Your task to perform on an android device: change notifications settings Image 0: 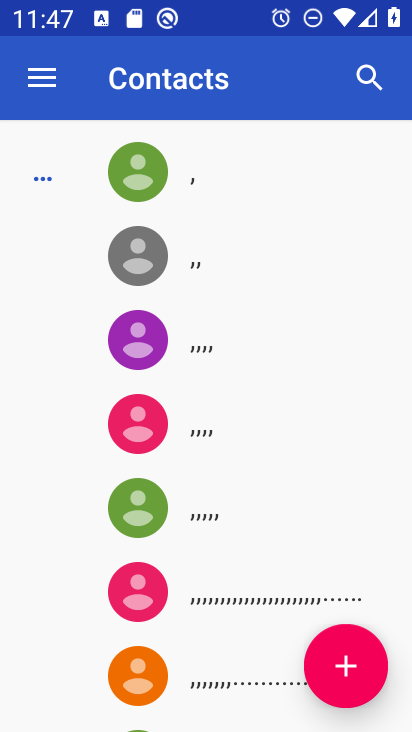
Step 0: press home button
Your task to perform on an android device: change notifications settings Image 1: 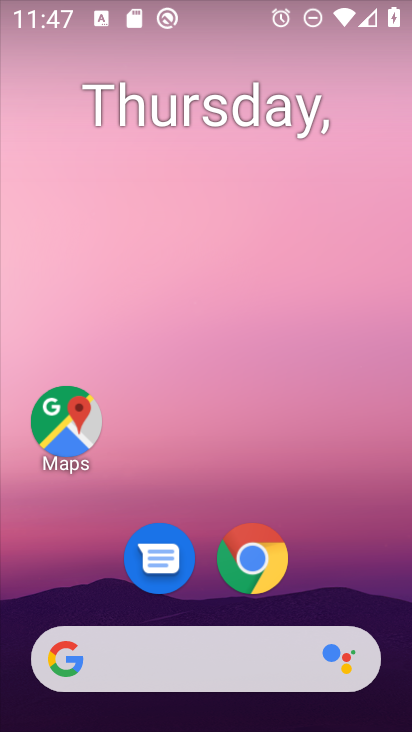
Step 1: drag from (377, 612) to (298, 120)
Your task to perform on an android device: change notifications settings Image 2: 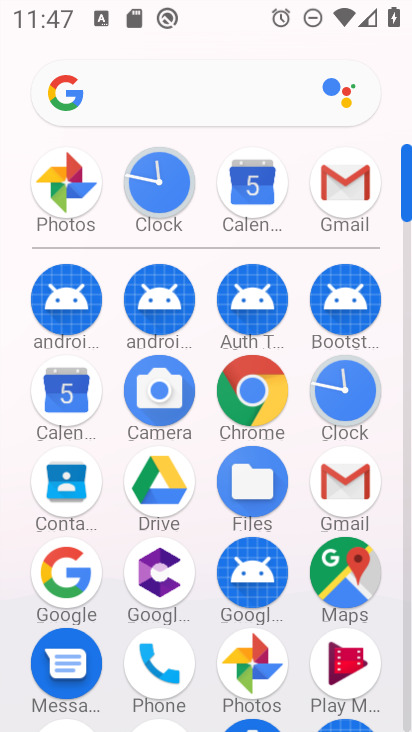
Step 2: click (407, 706)
Your task to perform on an android device: change notifications settings Image 3: 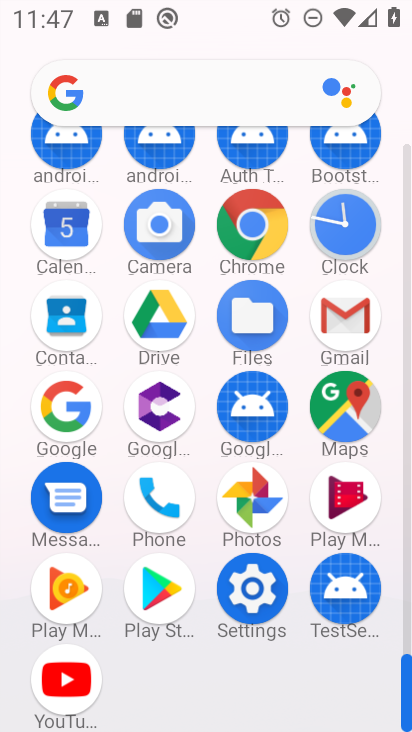
Step 3: click (246, 585)
Your task to perform on an android device: change notifications settings Image 4: 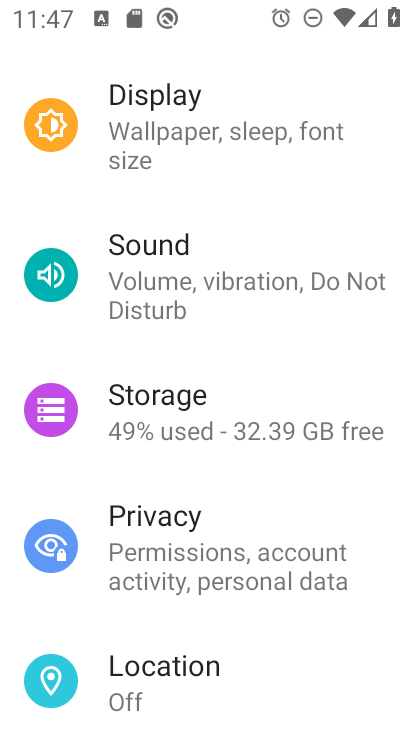
Step 4: drag from (345, 208) to (331, 433)
Your task to perform on an android device: change notifications settings Image 5: 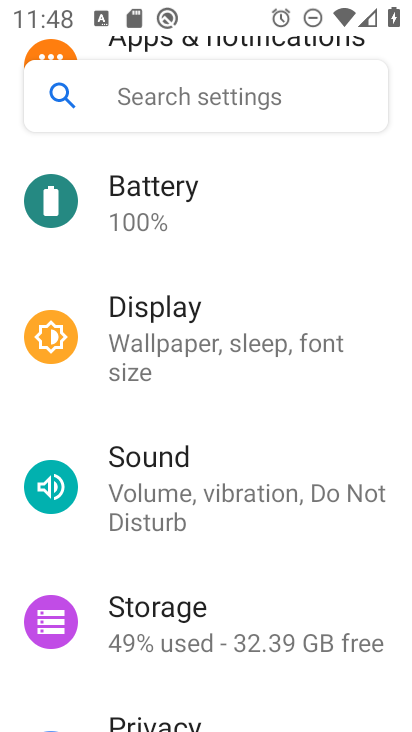
Step 5: drag from (333, 272) to (325, 458)
Your task to perform on an android device: change notifications settings Image 6: 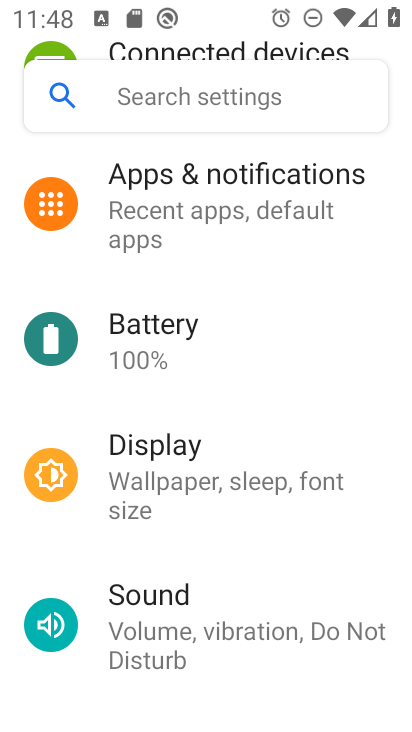
Step 6: click (184, 178)
Your task to perform on an android device: change notifications settings Image 7: 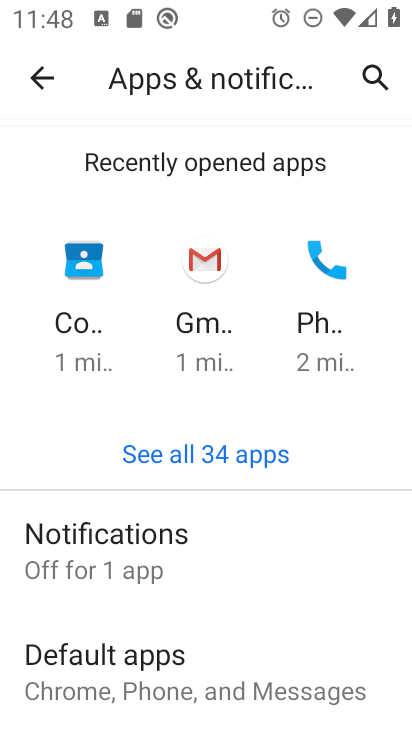
Step 7: click (128, 543)
Your task to perform on an android device: change notifications settings Image 8: 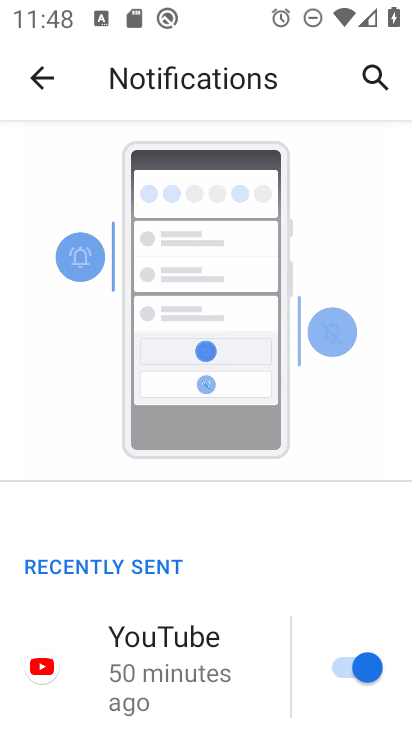
Step 8: drag from (287, 665) to (252, 315)
Your task to perform on an android device: change notifications settings Image 9: 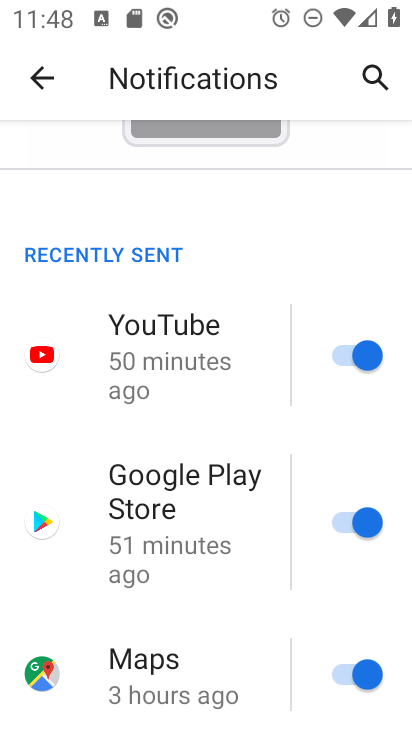
Step 9: drag from (284, 638) to (236, 248)
Your task to perform on an android device: change notifications settings Image 10: 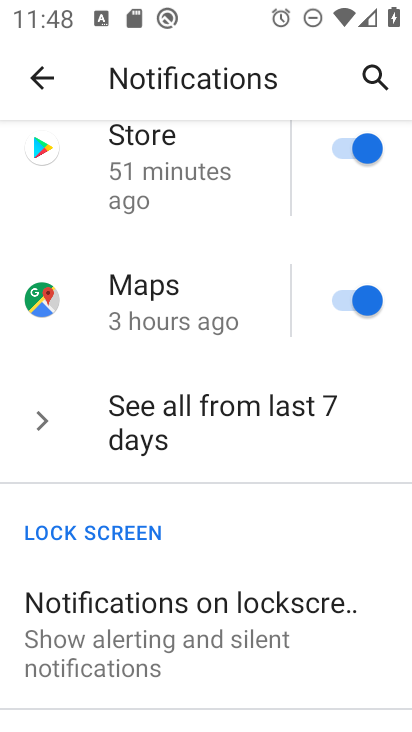
Step 10: drag from (252, 576) to (268, 196)
Your task to perform on an android device: change notifications settings Image 11: 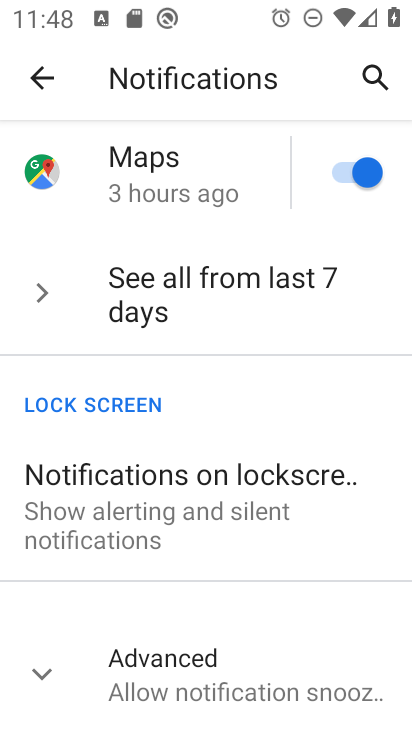
Step 11: click (48, 672)
Your task to perform on an android device: change notifications settings Image 12: 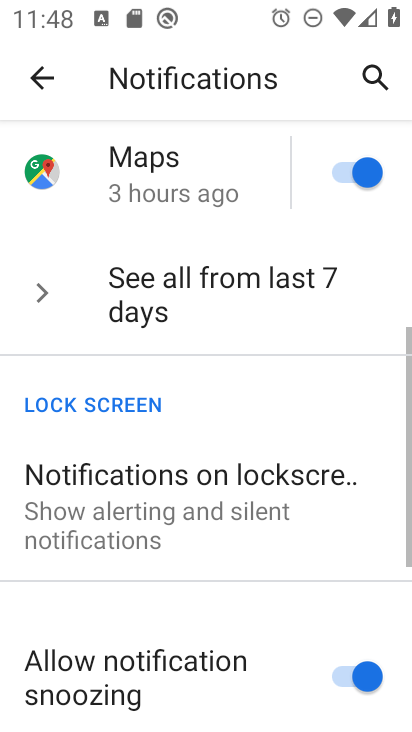
Step 12: drag from (305, 599) to (258, 304)
Your task to perform on an android device: change notifications settings Image 13: 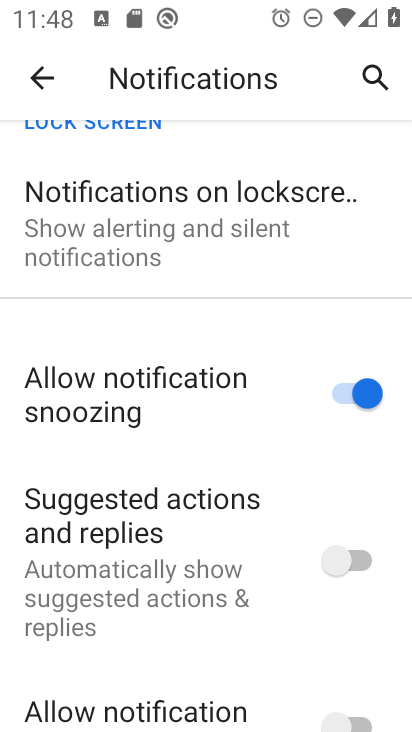
Step 13: drag from (222, 629) to (227, 314)
Your task to perform on an android device: change notifications settings Image 14: 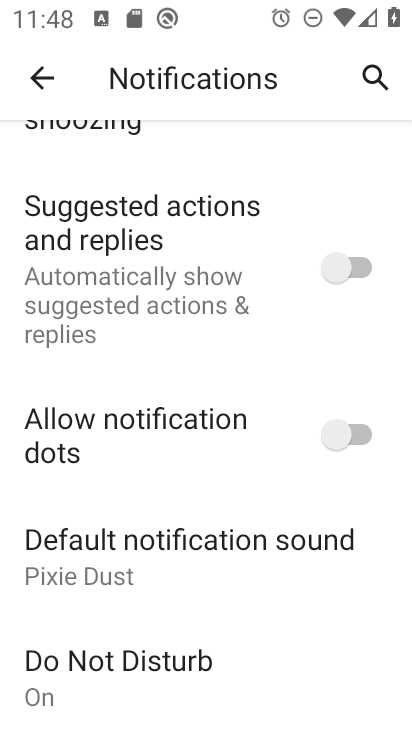
Step 14: drag from (226, 584) to (253, 328)
Your task to perform on an android device: change notifications settings Image 15: 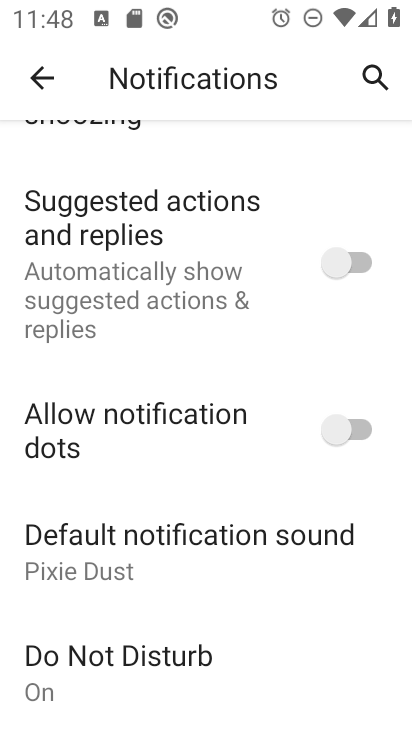
Step 15: click (365, 420)
Your task to perform on an android device: change notifications settings Image 16: 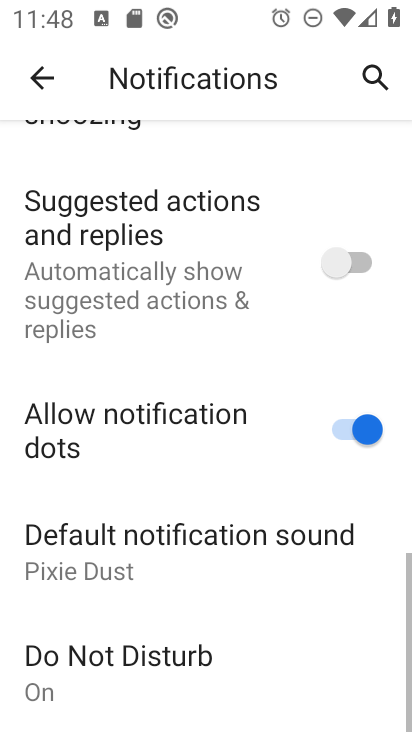
Step 16: click (360, 254)
Your task to perform on an android device: change notifications settings Image 17: 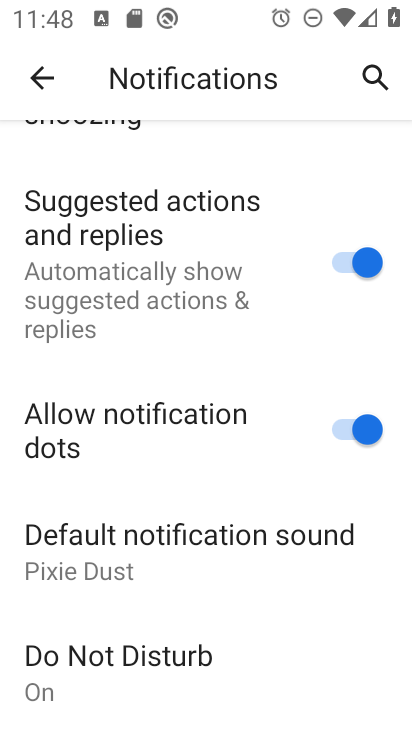
Step 17: task complete